Your task to perform on an android device: Open Google Image 0: 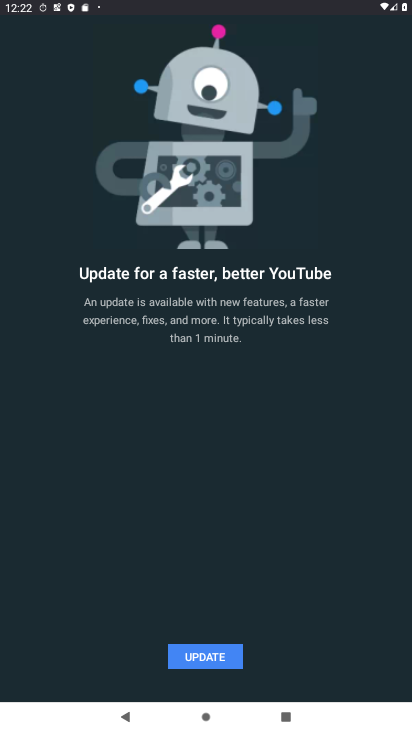
Step 0: press back button
Your task to perform on an android device: Open Google Image 1: 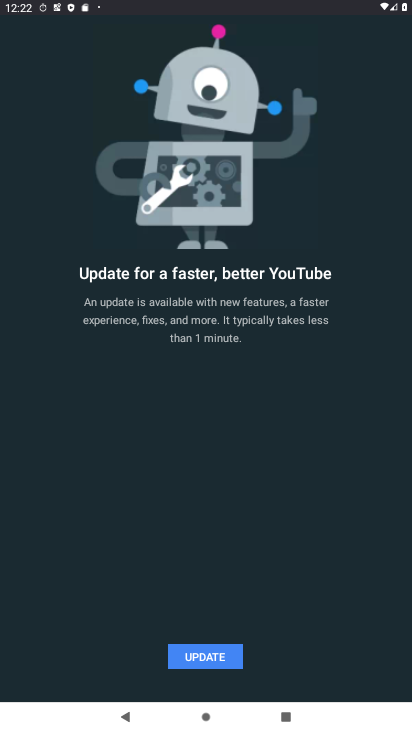
Step 1: press back button
Your task to perform on an android device: Open Google Image 2: 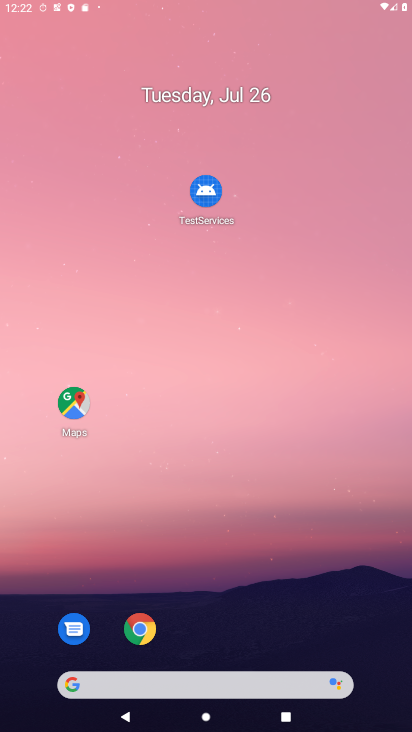
Step 2: press back button
Your task to perform on an android device: Open Google Image 3: 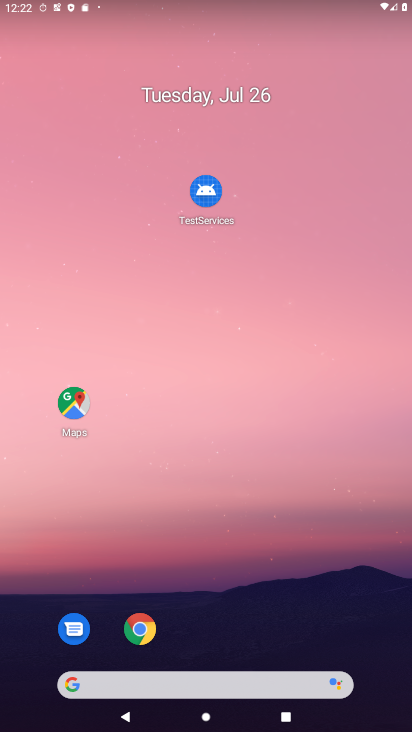
Step 3: drag from (242, 656) to (192, 148)
Your task to perform on an android device: Open Google Image 4: 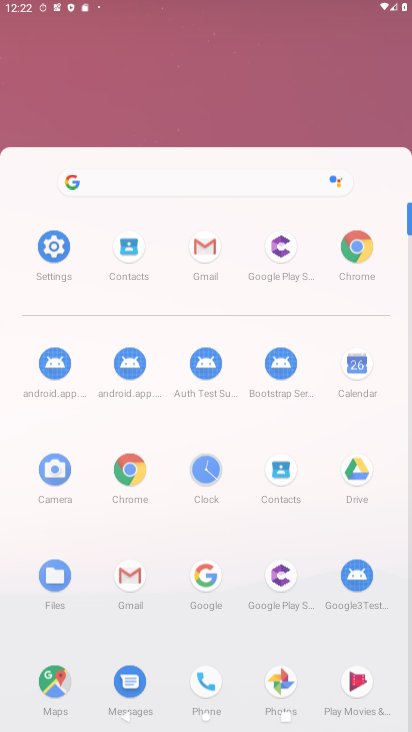
Step 4: drag from (290, 545) to (235, 146)
Your task to perform on an android device: Open Google Image 5: 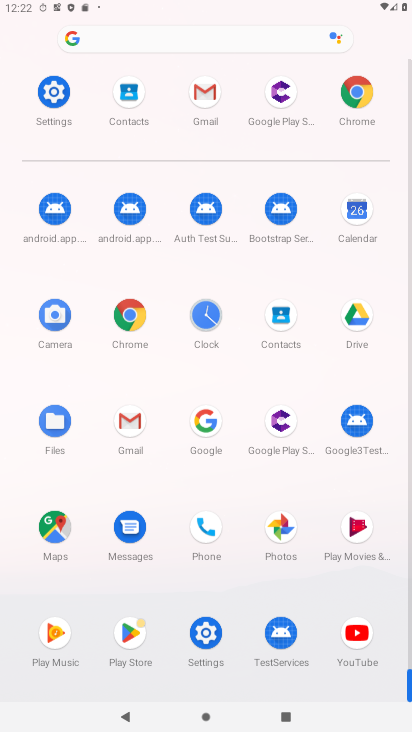
Step 5: drag from (275, 492) to (270, 123)
Your task to perform on an android device: Open Google Image 6: 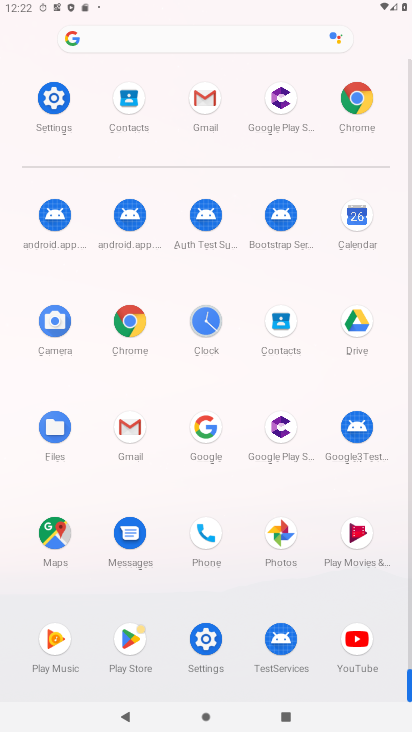
Step 6: click (196, 424)
Your task to perform on an android device: Open Google Image 7: 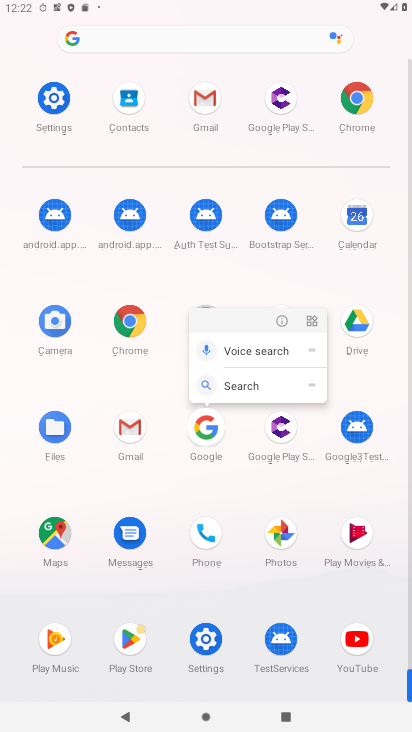
Step 7: click (198, 427)
Your task to perform on an android device: Open Google Image 8: 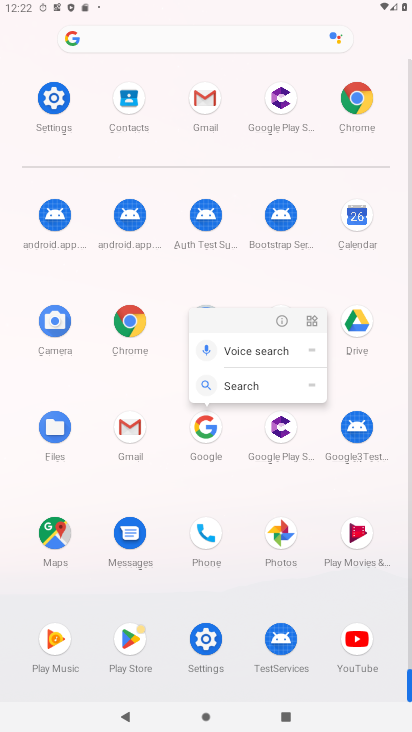
Step 8: click (197, 428)
Your task to perform on an android device: Open Google Image 9: 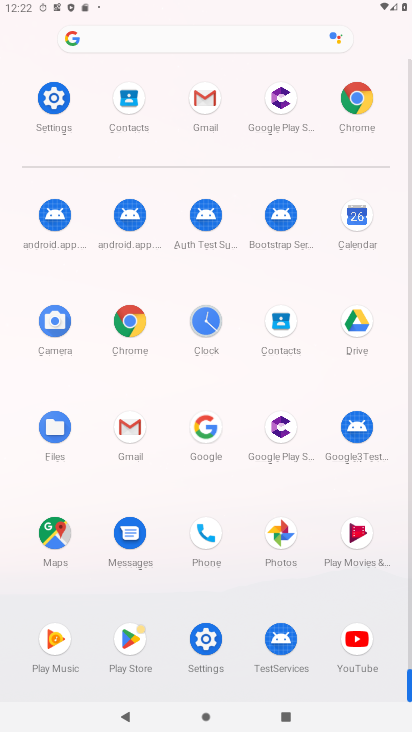
Step 9: click (196, 428)
Your task to perform on an android device: Open Google Image 10: 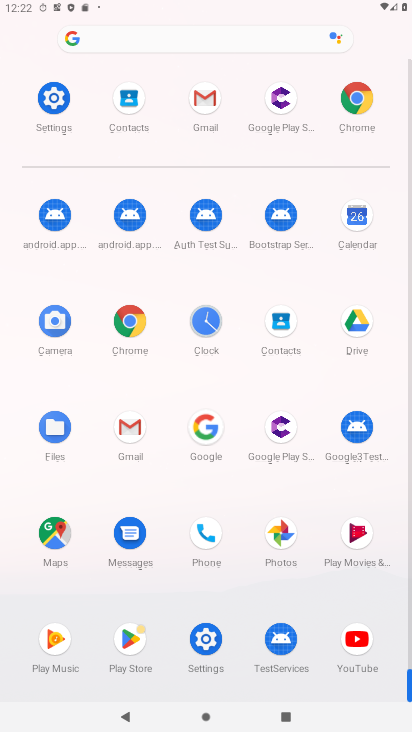
Step 10: click (202, 426)
Your task to perform on an android device: Open Google Image 11: 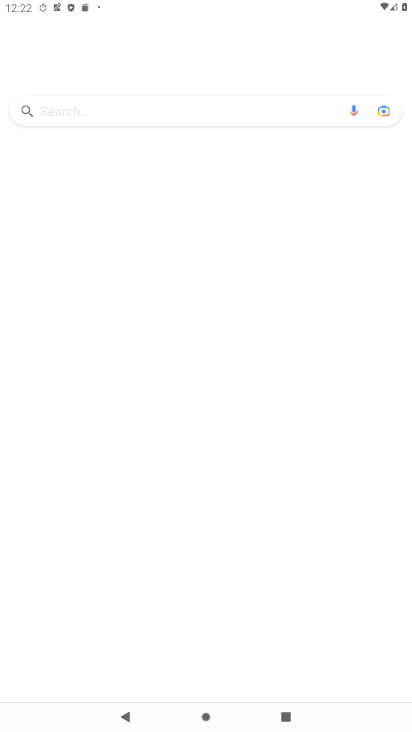
Step 11: click (206, 430)
Your task to perform on an android device: Open Google Image 12: 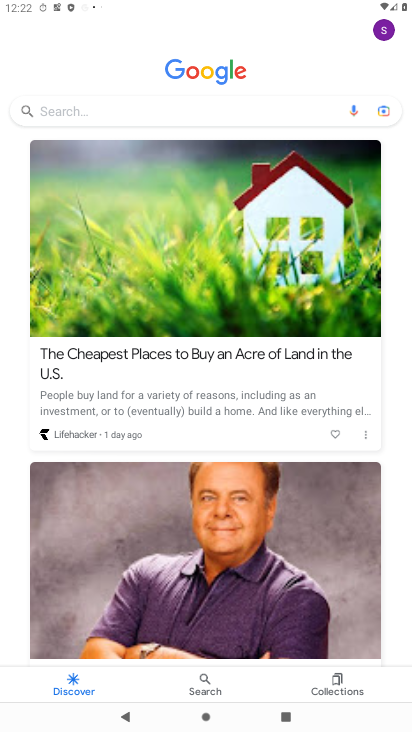
Step 12: task complete